Your task to perform on an android device: turn off location Image 0: 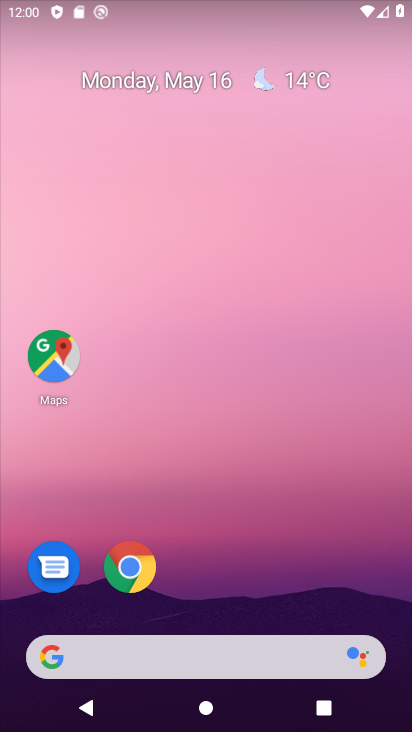
Step 0: drag from (227, 581) to (148, 67)
Your task to perform on an android device: turn off location Image 1: 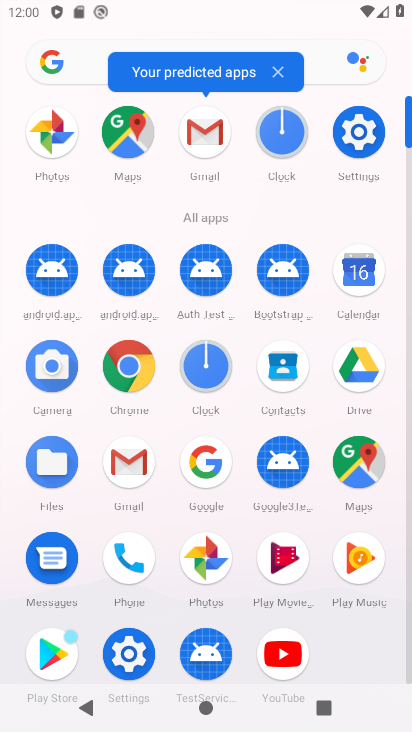
Step 1: click (355, 137)
Your task to perform on an android device: turn off location Image 2: 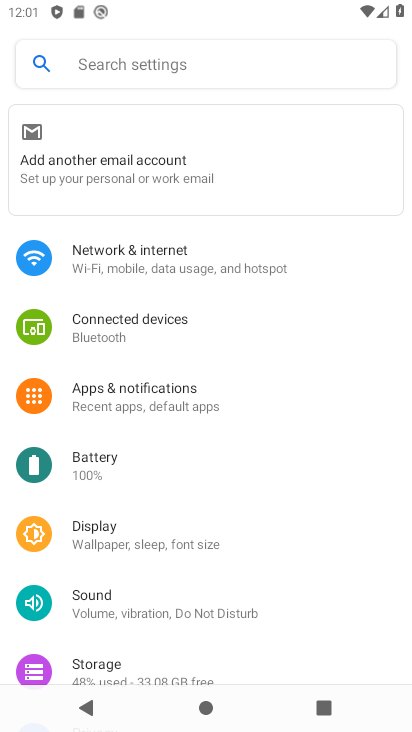
Step 2: drag from (243, 583) to (217, 241)
Your task to perform on an android device: turn off location Image 3: 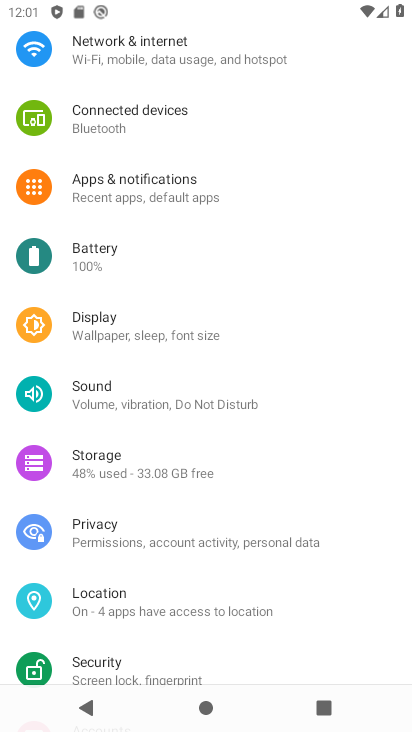
Step 3: click (106, 589)
Your task to perform on an android device: turn off location Image 4: 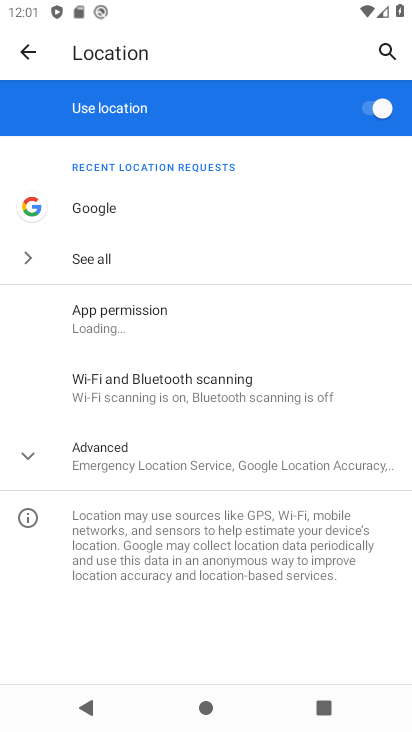
Step 4: click (373, 100)
Your task to perform on an android device: turn off location Image 5: 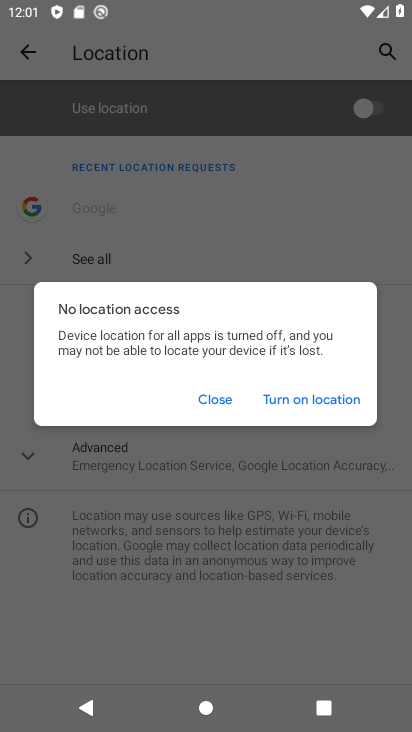
Step 5: task complete